Your task to perform on an android device: turn off picture-in-picture Image 0: 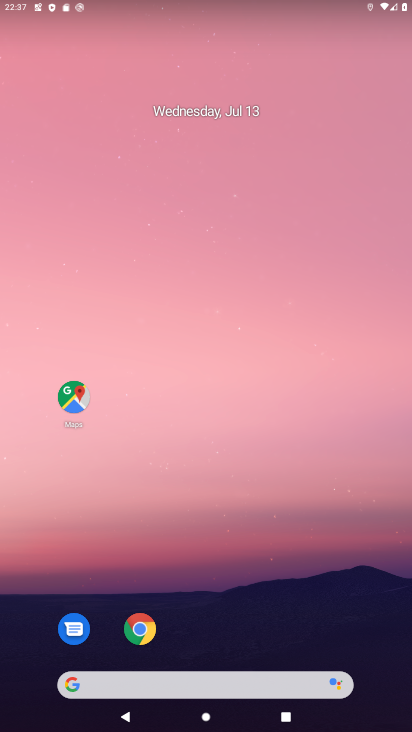
Step 0: press home button
Your task to perform on an android device: turn off picture-in-picture Image 1: 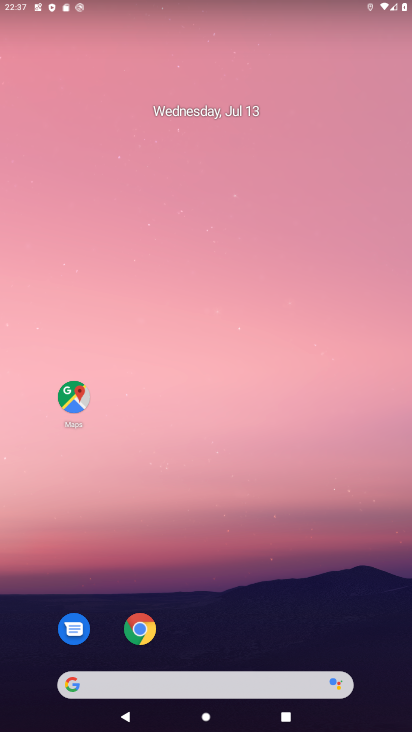
Step 1: click (136, 624)
Your task to perform on an android device: turn off picture-in-picture Image 2: 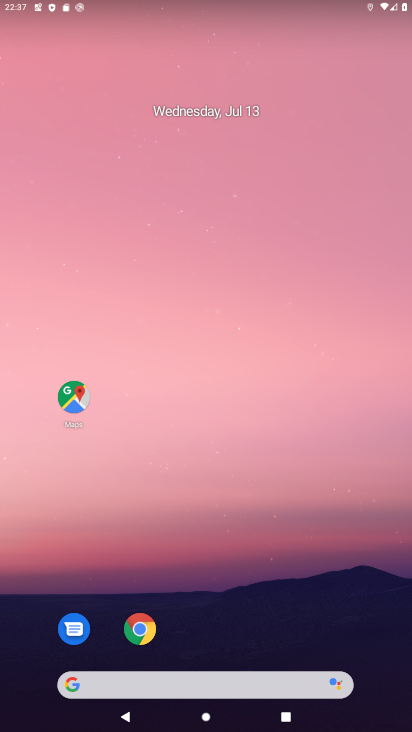
Step 2: click (141, 625)
Your task to perform on an android device: turn off picture-in-picture Image 3: 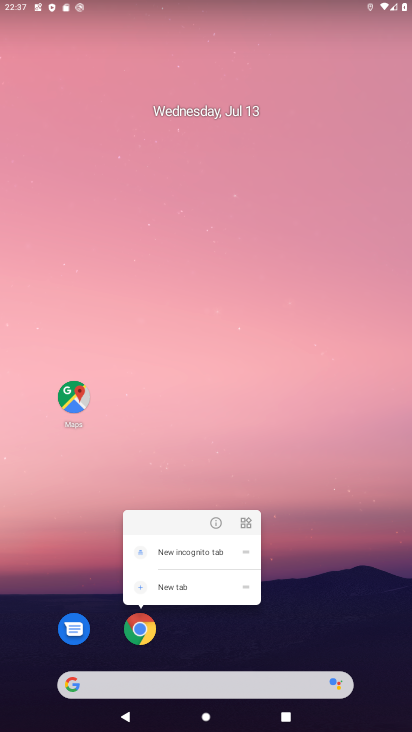
Step 3: click (214, 516)
Your task to perform on an android device: turn off picture-in-picture Image 4: 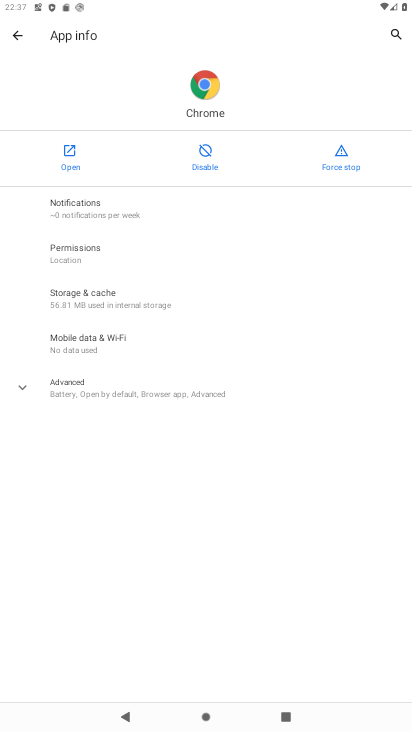
Step 4: click (20, 383)
Your task to perform on an android device: turn off picture-in-picture Image 5: 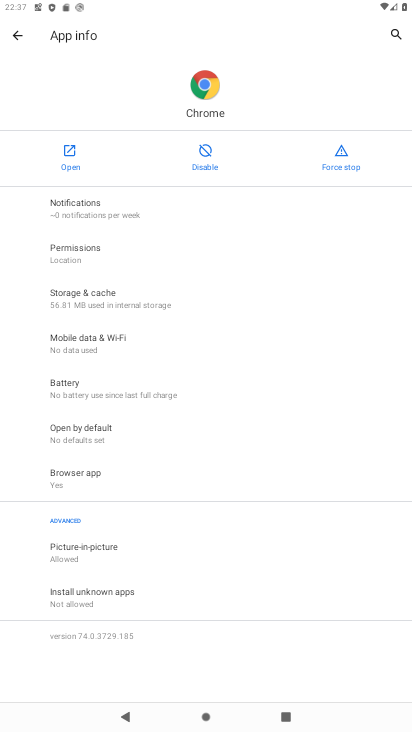
Step 5: click (89, 550)
Your task to perform on an android device: turn off picture-in-picture Image 6: 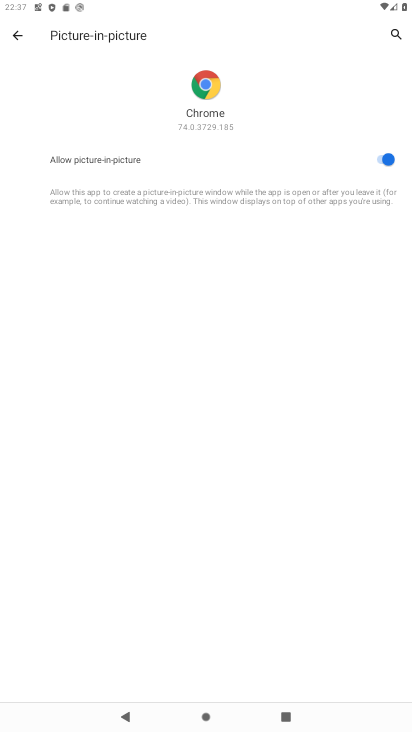
Step 6: click (379, 155)
Your task to perform on an android device: turn off picture-in-picture Image 7: 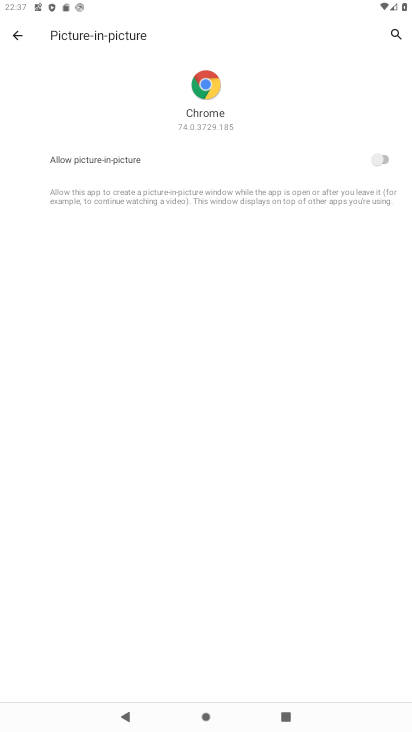
Step 7: task complete